Your task to perform on an android device: open chrome and create a bookmark for the current page Image 0: 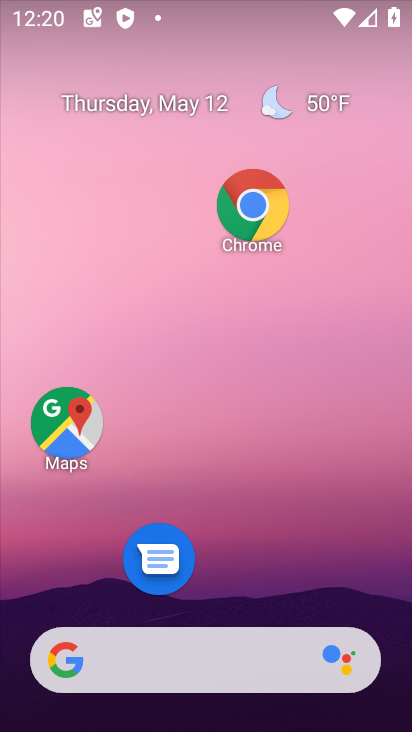
Step 0: drag from (245, 563) to (268, 44)
Your task to perform on an android device: open chrome and create a bookmark for the current page Image 1: 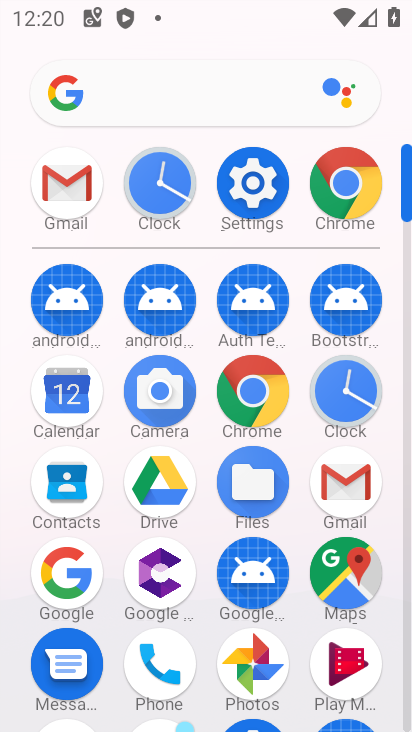
Step 1: click (250, 436)
Your task to perform on an android device: open chrome and create a bookmark for the current page Image 2: 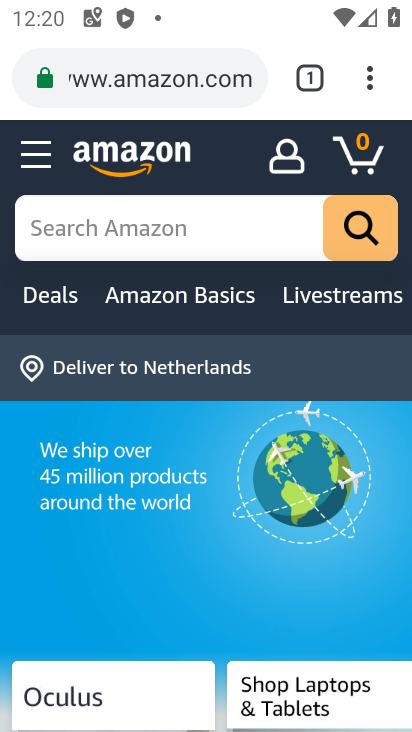
Step 2: click (372, 79)
Your task to perform on an android device: open chrome and create a bookmark for the current page Image 3: 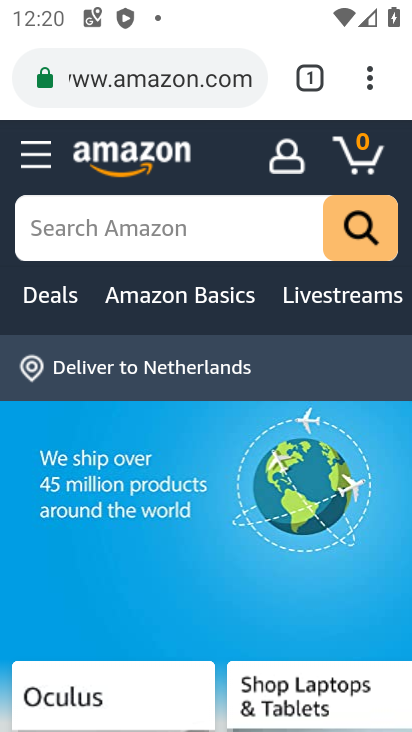
Step 3: click (372, 79)
Your task to perform on an android device: open chrome and create a bookmark for the current page Image 4: 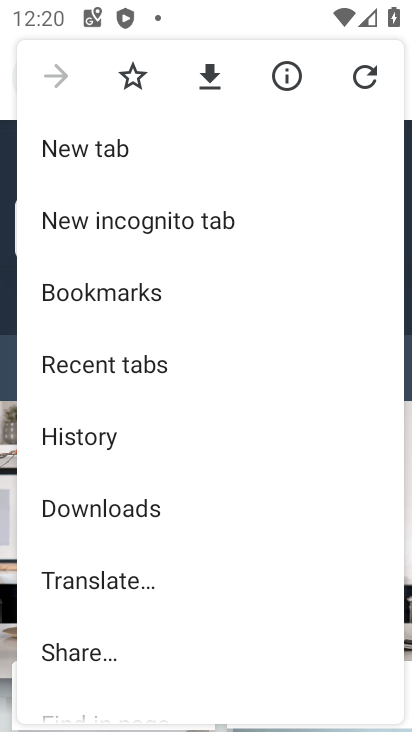
Step 4: click (131, 78)
Your task to perform on an android device: open chrome and create a bookmark for the current page Image 5: 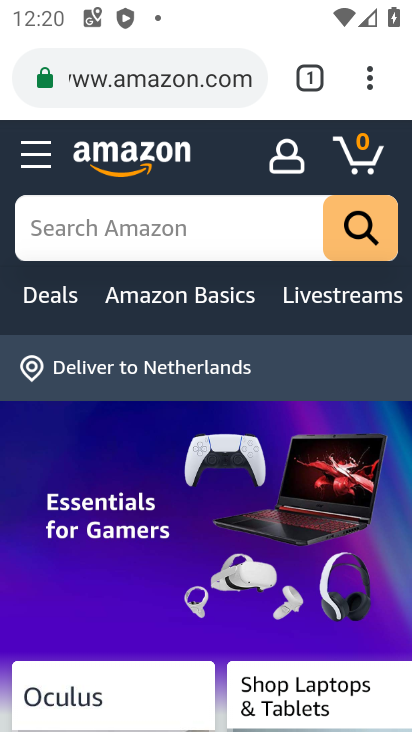
Step 5: task complete